Your task to perform on an android device: Go to Maps Image 0: 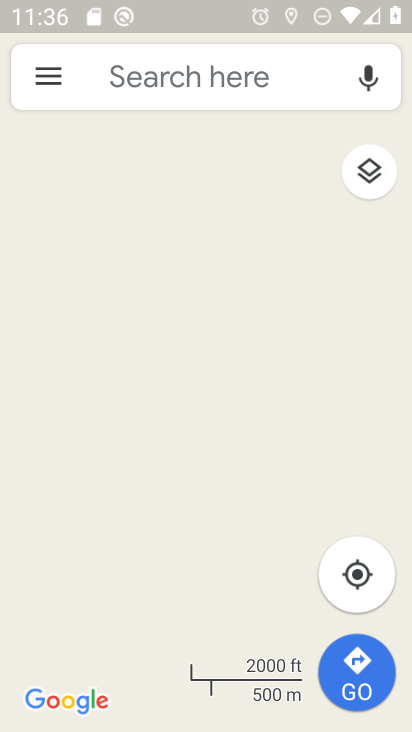
Step 0: drag from (363, 570) to (263, 356)
Your task to perform on an android device: Go to Maps Image 1: 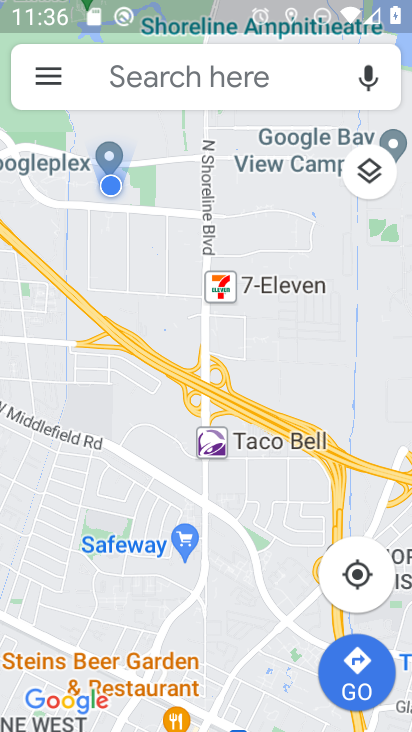
Step 1: task complete